Your task to perform on an android device: Go to Reddit.com Image 0: 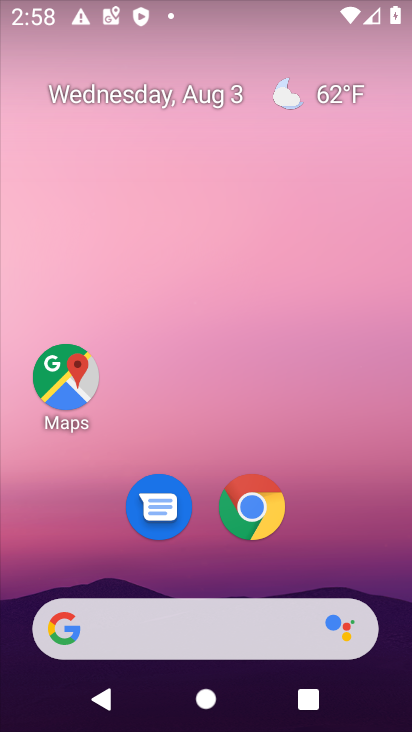
Step 0: drag from (366, 580) to (16, 52)
Your task to perform on an android device: Go to Reddit.com Image 1: 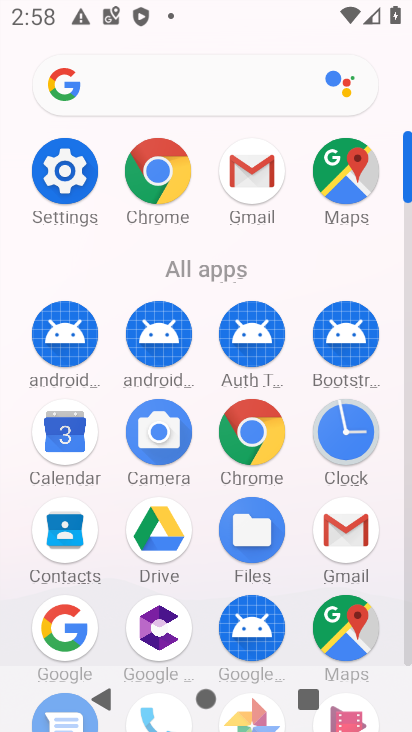
Step 1: drag from (405, 184) to (412, 245)
Your task to perform on an android device: Go to Reddit.com Image 2: 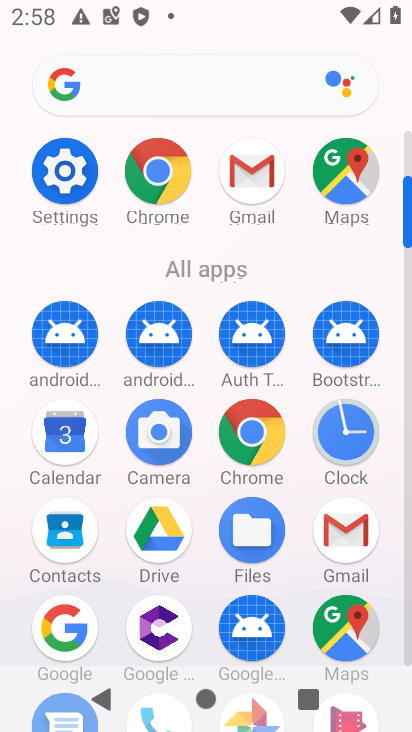
Step 2: click (168, 180)
Your task to perform on an android device: Go to Reddit.com Image 3: 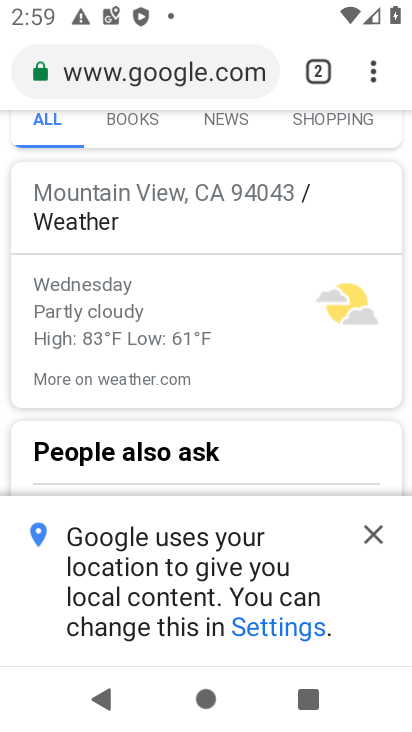
Step 3: drag from (334, 204) to (361, 371)
Your task to perform on an android device: Go to Reddit.com Image 4: 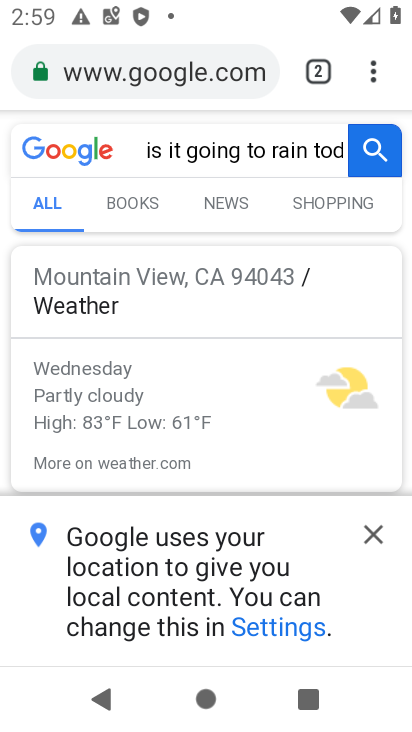
Step 4: click (308, 154)
Your task to perform on an android device: Go to Reddit.com Image 5: 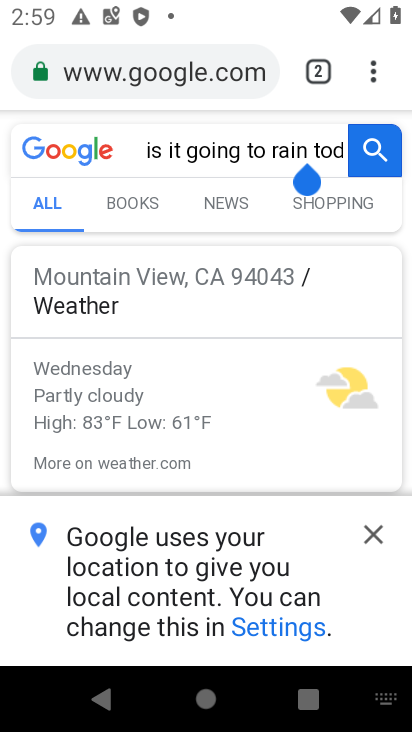
Step 5: click (322, 145)
Your task to perform on an android device: Go to Reddit.com Image 6: 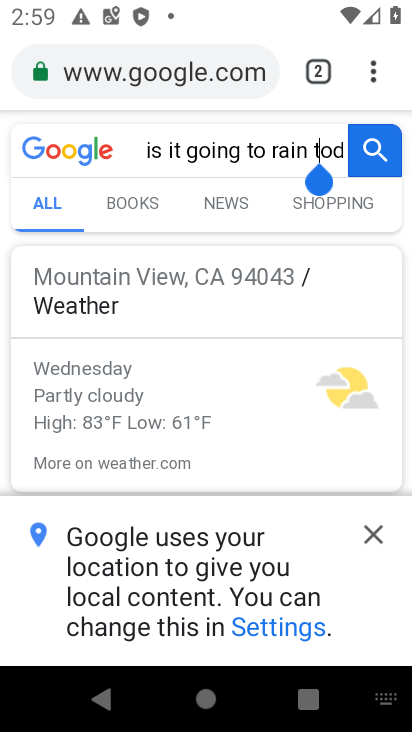
Step 6: drag from (318, 185) to (364, 184)
Your task to perform on an android device: Go to Reddit.com Image 7: 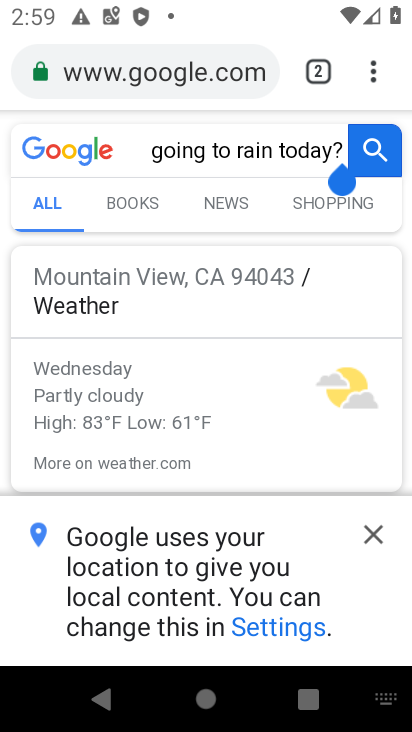
Step 7: click (322, 65)
Your task to perform on an android device: Go to Reddit.com Image 8: 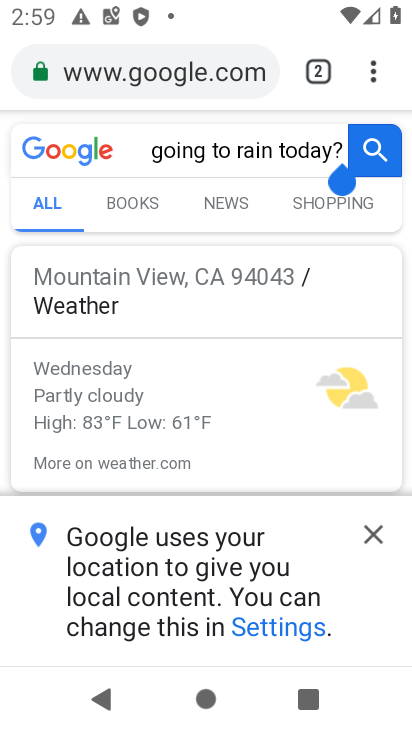
Step 8: click (319, 71)
Your task to perform on an android device: Go to Reddit.com Image 9: 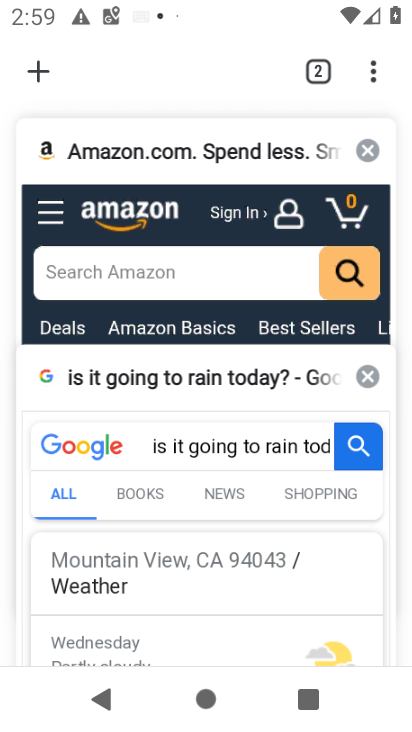
Step 9: click (45, 67)
Your task to perform on an android device: Go to Reddit.com Image 10: 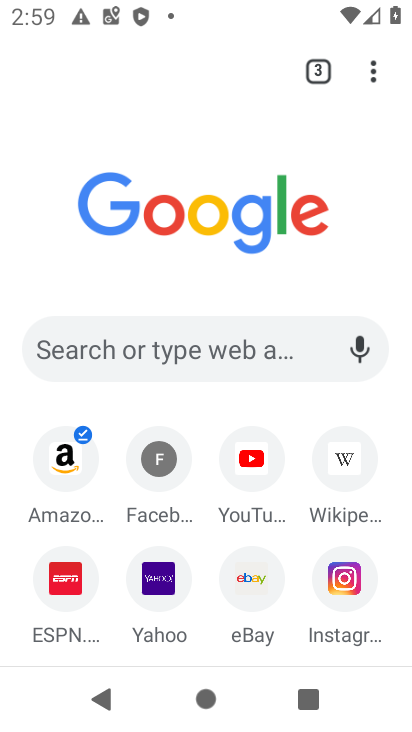
Step 10: click (179, 357)
Your task to perform on an android device: Go to Reddit.com Image 11: 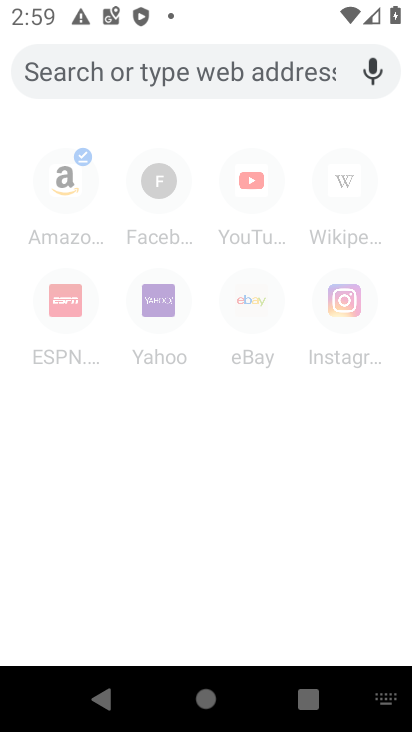
Step 11: type "reddit.com"
Your task to perform on an android device: Go to Reddit.com Image 12: 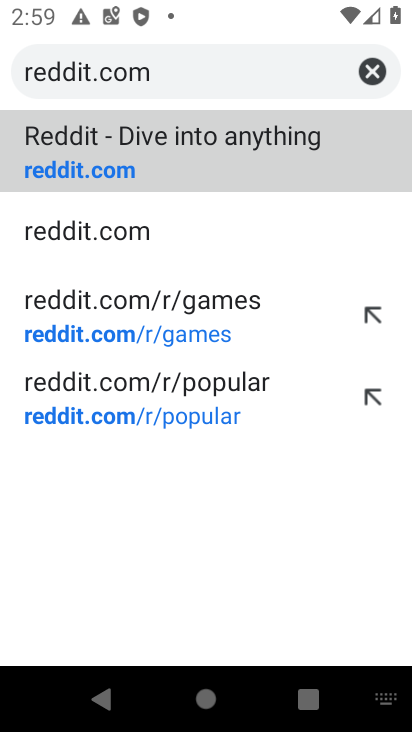
Step 12: click (205, 141)
Your task to perform on an android device: Go to Reddit.com Image 13: 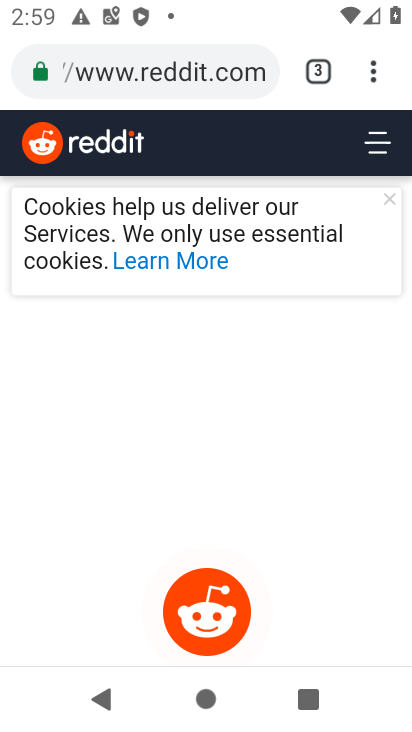
Step 13: task complete